Your task to perform on an android device: turn off wifi Image 0: 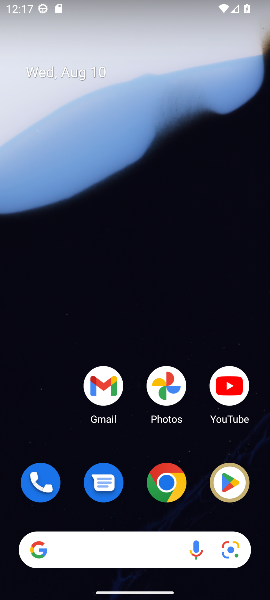
Step 0: drag from (56, 371) to (59, 93)
Your task to perform on an android device: turn off wifi Image 1: 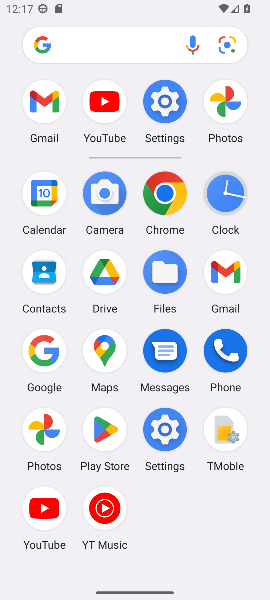
Step 1: click (163, 105)
Your task to perform on an android device: turn off wifi Image 2: 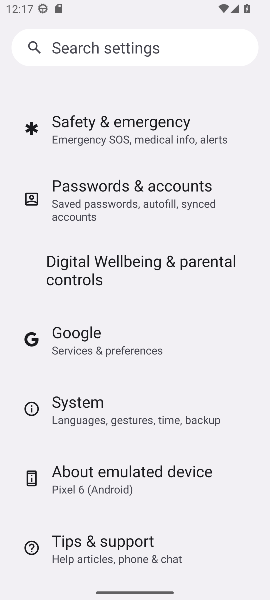
Step 2: task complete